Your task to perform on an android device: open a new tab in the chrome app Image 0: 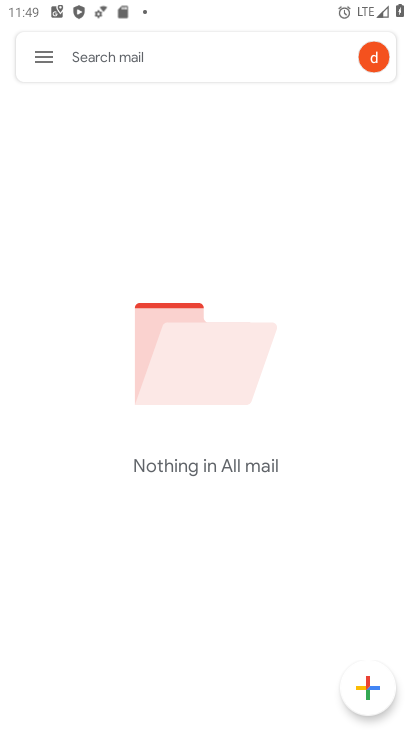
Step 0: press home button
Your task to perform on an android device: open a new tab in the chrome app Image 1: 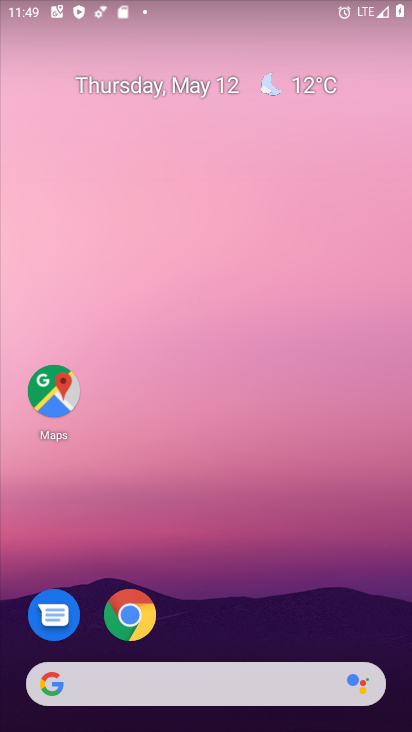
Step 1: click (135, 610)
Your task to perform on an android device: open a new tab in the chrome app Image 2: 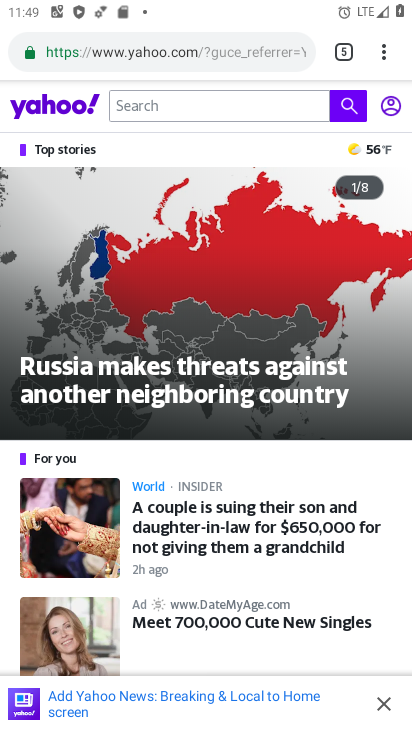
Step 2: click (380, 53)
Your task to perform on an android device: open a new tab in the chrome app Image 3: 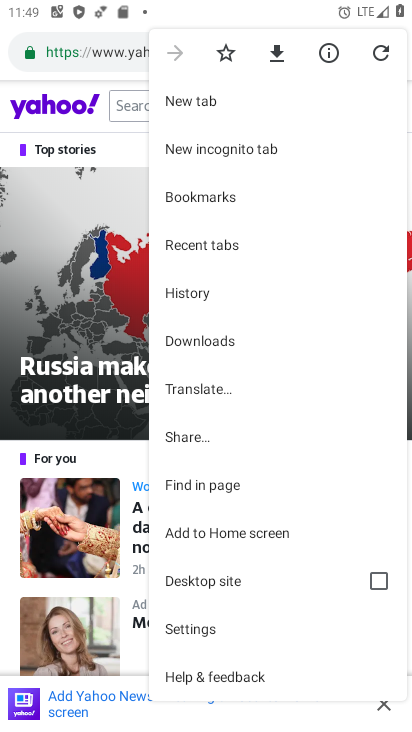
Step 3: click (322, 86)
Your task to perform on an android device: open a new tab in the chrome app Image 4: 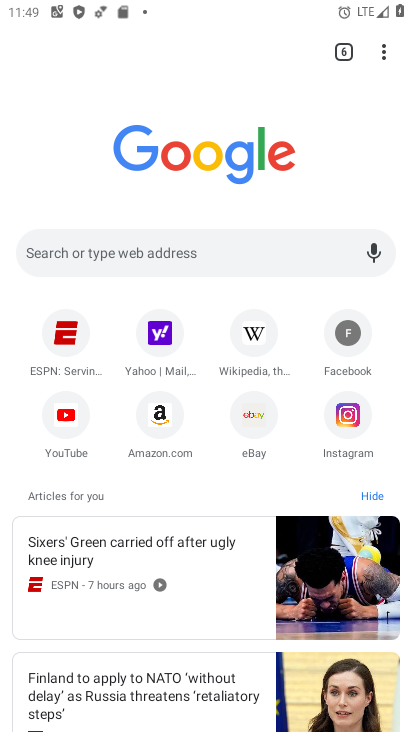
Step 4: task complete